Your task to perform on an android device: Go to network settings Image 0: 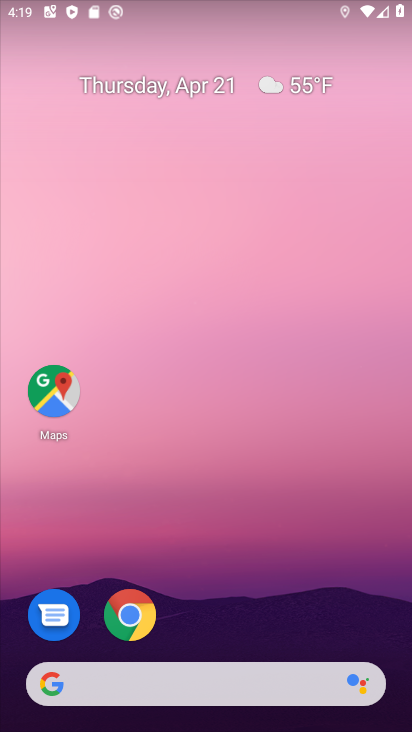
Step 0: drag from (209, 647) to (206, 153)
Your task to perform on an android device: Go to network settings Image 1: 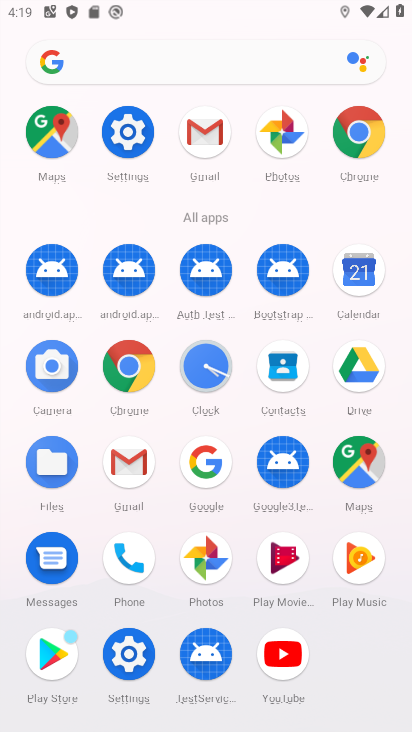
Step 1: click (133, 150)
Your task to perform on an android device: Go to network settings Image 2: 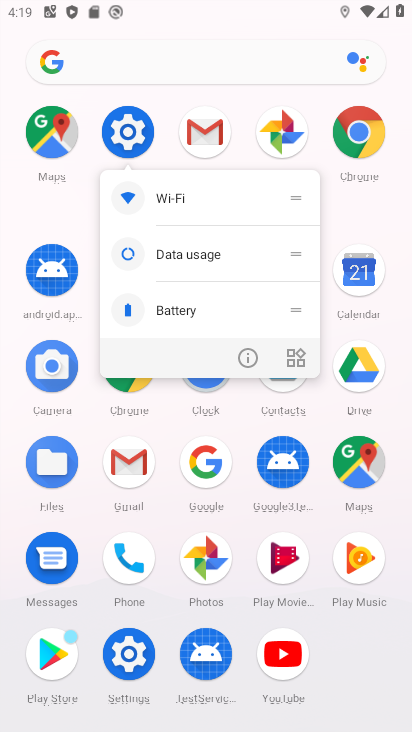
Step 2: click (133, 150)
Your task to perform on an android device: Go to network settings Image 3: 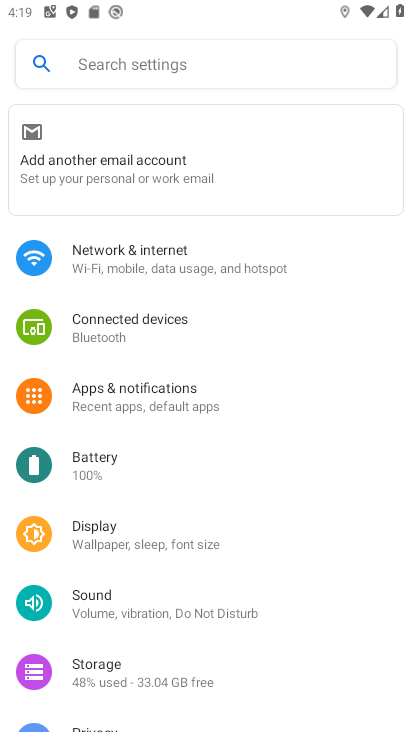
Step 3: click (133, 252)
Your task to perform on an android device: Go to network settings Image 4: 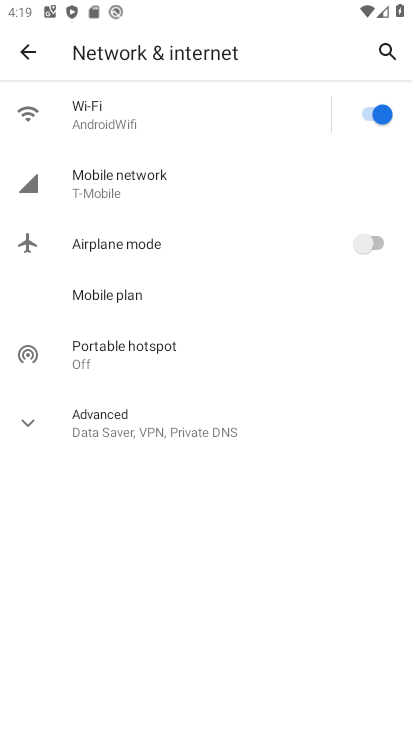
Step 4: task complete